Your task to perform on an android device: turn on wifi Image 0: 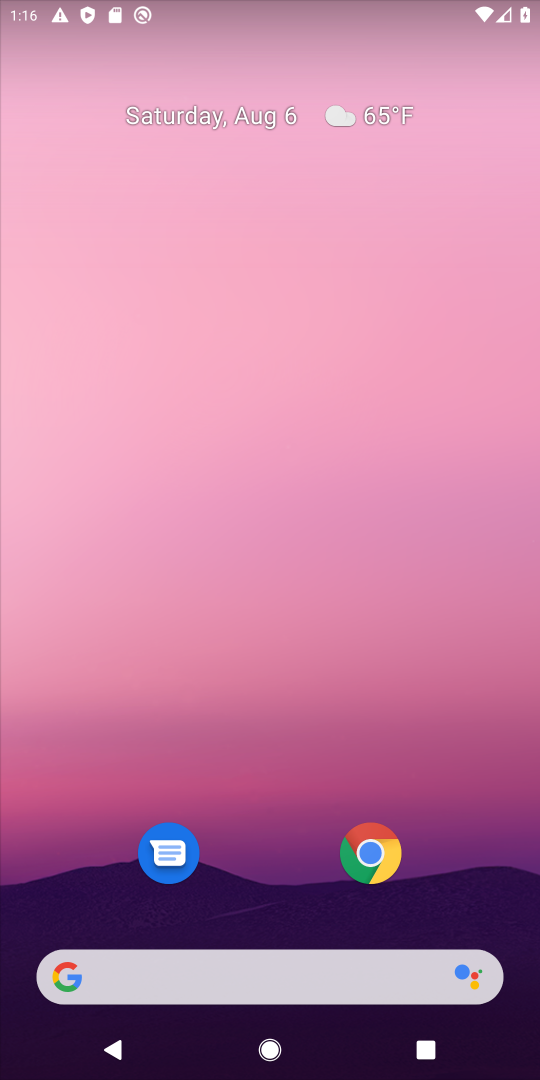
Step 0: drag from (476, 910) to (467, 143)
Your task to perform on an android device: turn on wifi Image 1: 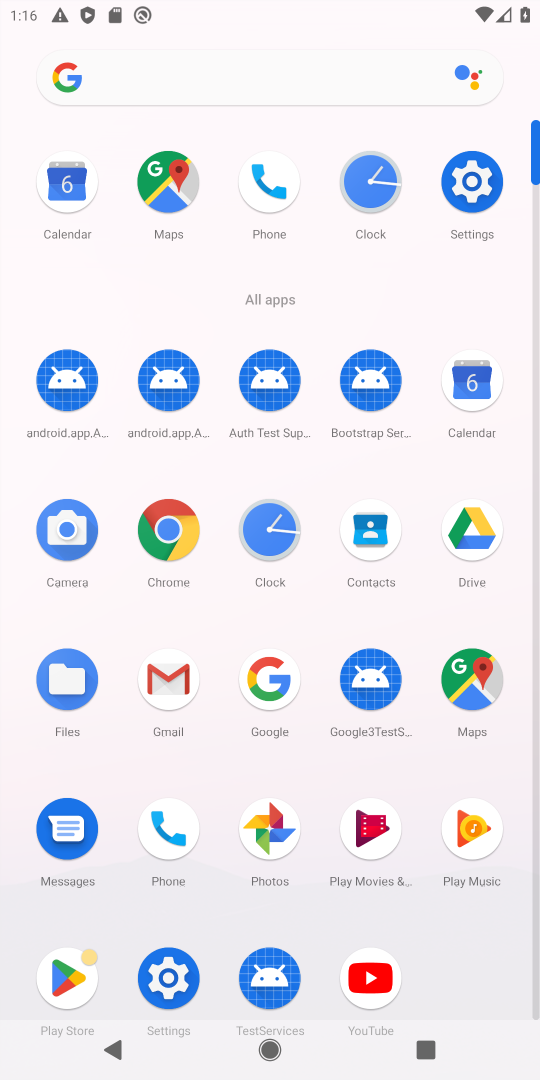
Step 1: click (166, 981)
Your task to perform on an android device: turn on wifi Image 2: 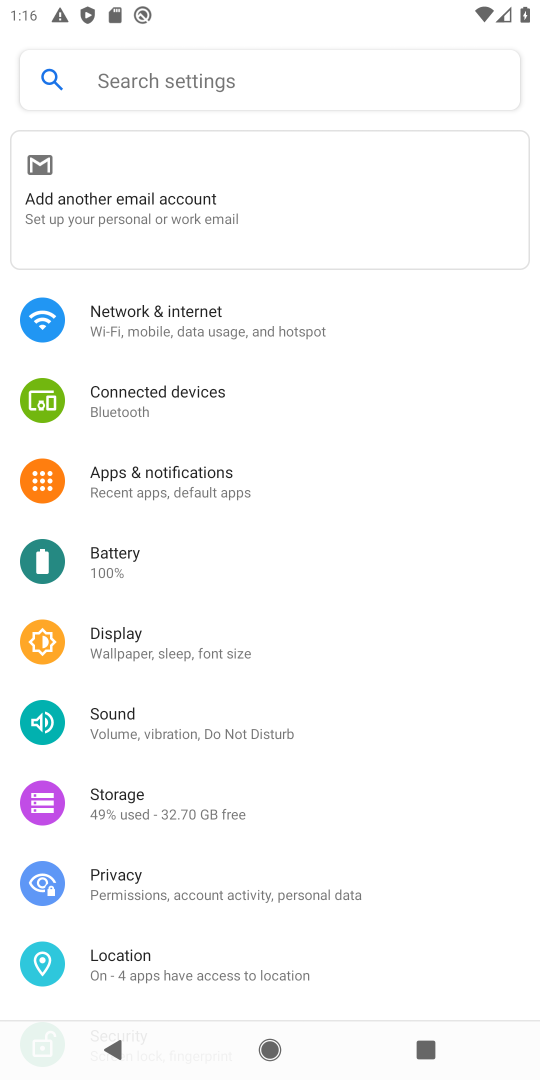
Step 2: click (131, 307)
Your task to perform on an android device: turn on wifi Image 3: 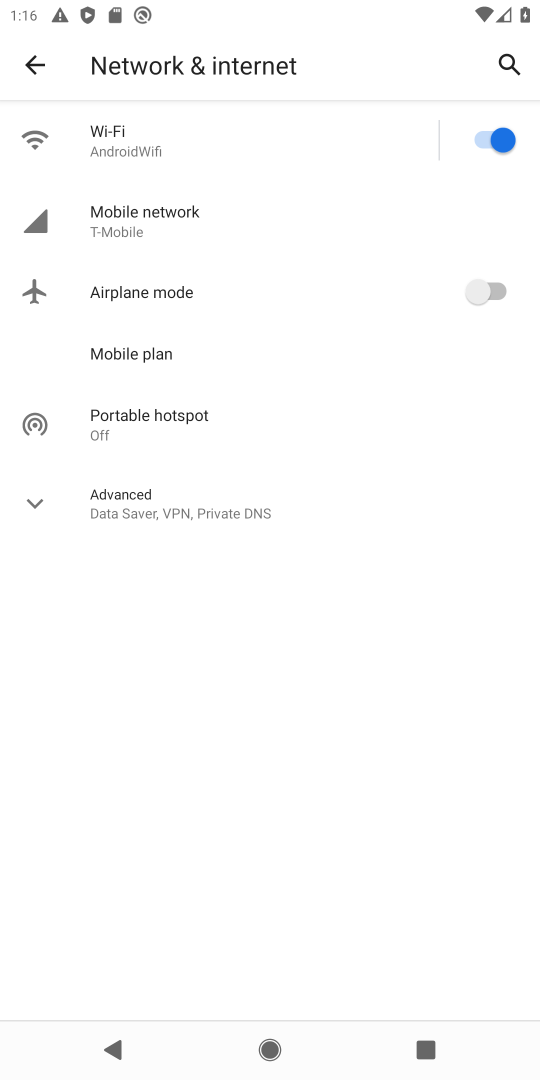
Step 3: task complete